Your task to perform on an android device: check out phone information Image 0: 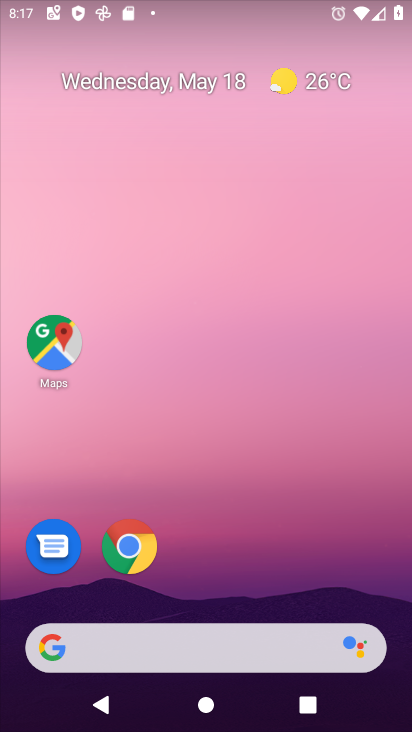
Step 0: drag from (394, 621) to (257, 53)
Your task to perform on an android device: check out phone information Image 1: 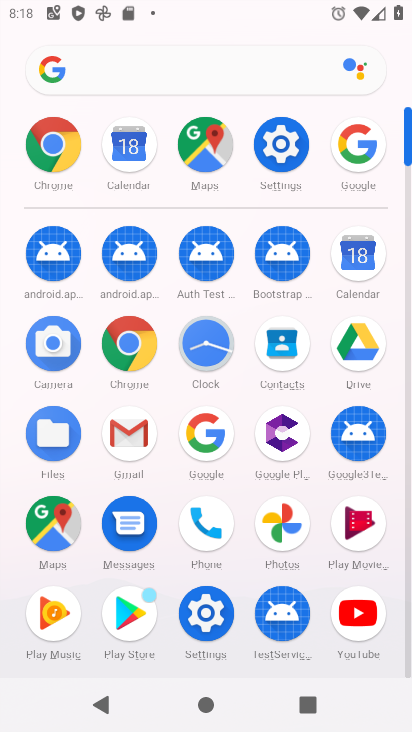
Step 1: click (221, 619)
Your task to perform on an android device: check out phone information Image 2: 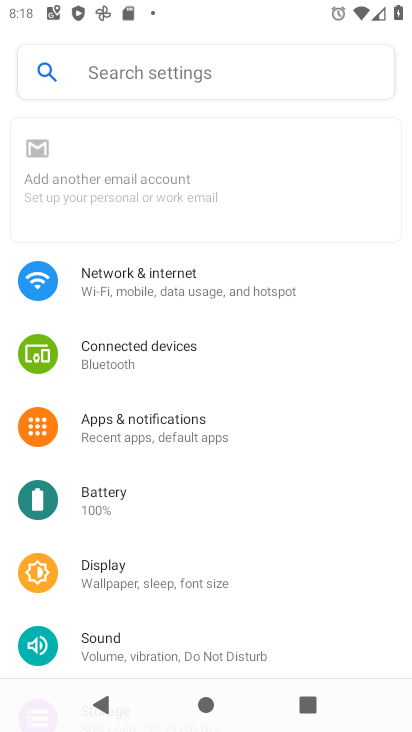
Step 2: drag from (216, 617) to (220, 134)
Your task to perform on an android device: check out phone information Image 3: 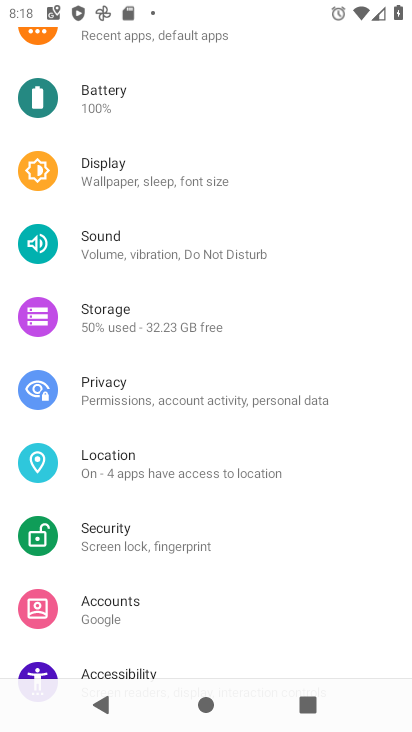
Step 3: drag from (199, 643) to (248, 102)
Your task to perform on an android device: check out phone information Image 4: 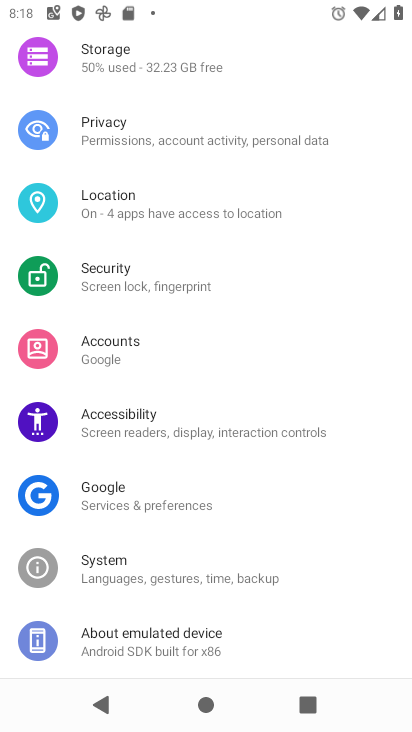
Step 4: click (170, 652)
Your task to perform on an android device: check out phone information Image 5: 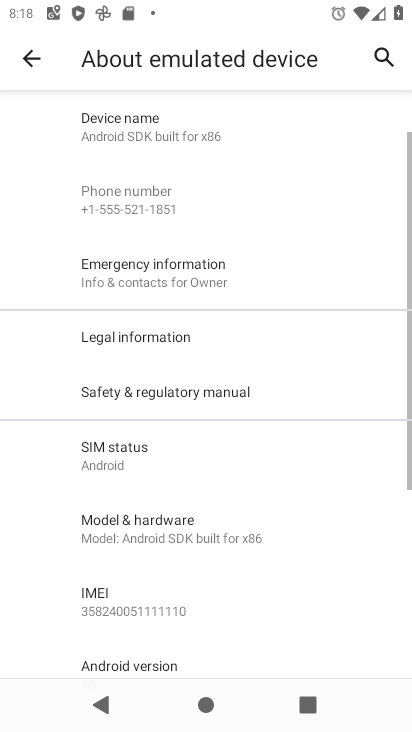
Step 5: task complete